Your task to perform on an android device: Search for Italian restaurants on Maps Image 0: 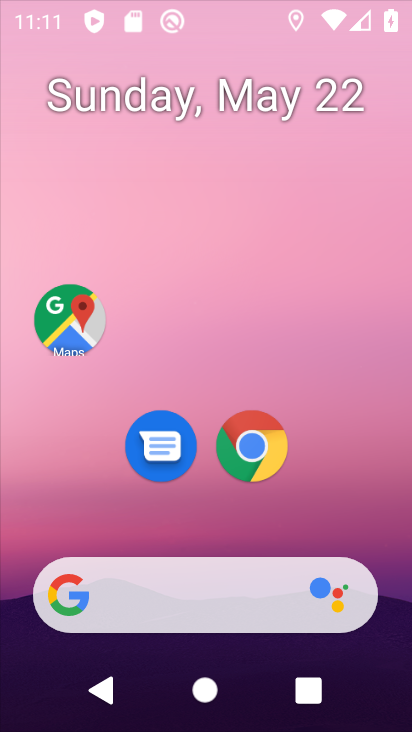
Step 0: drag from (203, 416) to (296, 85)
Your task to perform on an android device: Search for Italian restaurants on Maps Image 1: 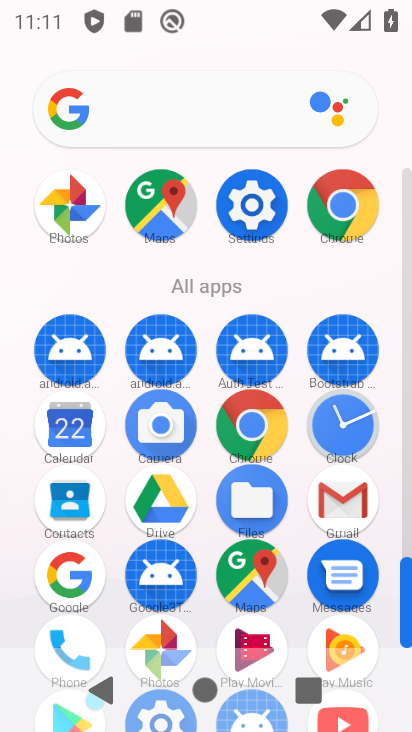
Step 1: click (272, 189)
Your task to perform on an android device: Search for Italian restaurants on Maps Image 2: 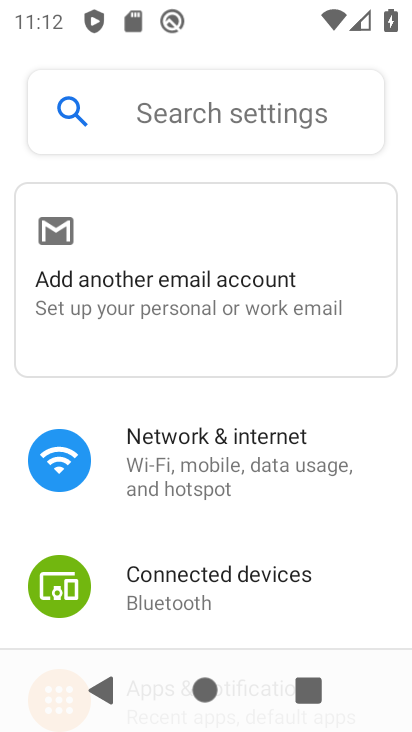
Step 2: drag from (268, 376) to (319, 147)
Your task to perform on an android device: Search for Italian restaurants on Maps Image 3: 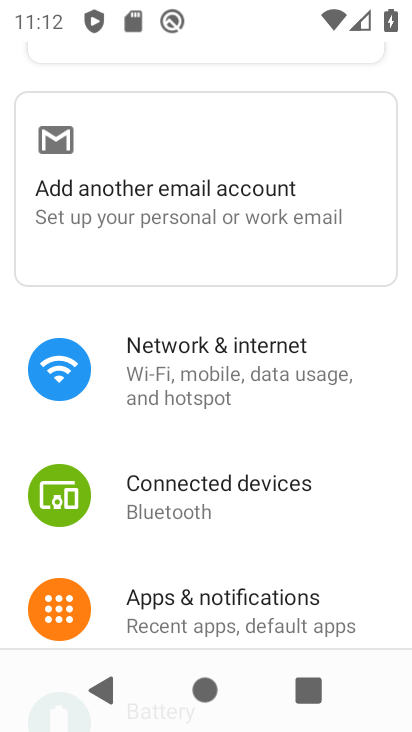
Step 3: press back button
Your task to perform on an android device: Search for Italian restaurants on Maps Image 4: 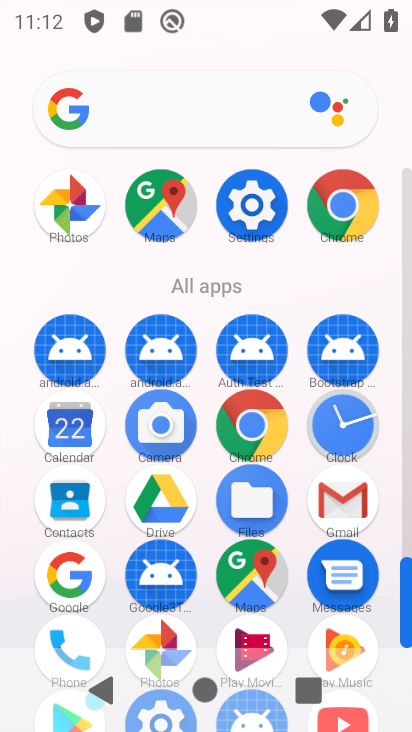
Step 4: click (143, 203)
Your task to perform on an android device: Search for Italian restaurants on Maps Image 5: 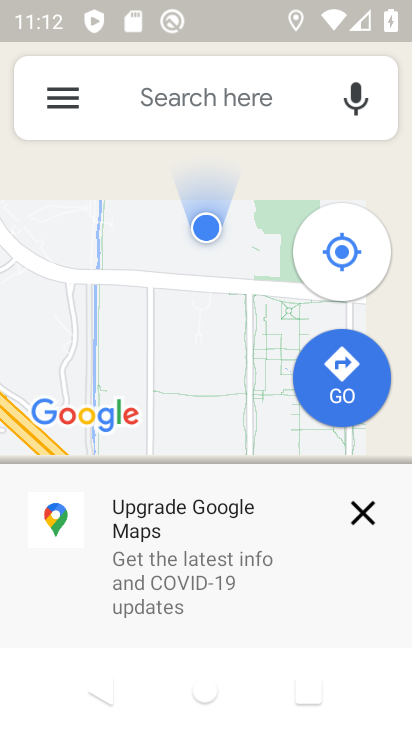
Step 5: click (159, 93)
Your task to perform on an android device: Search for Italian restaurants on Maps Image 6: 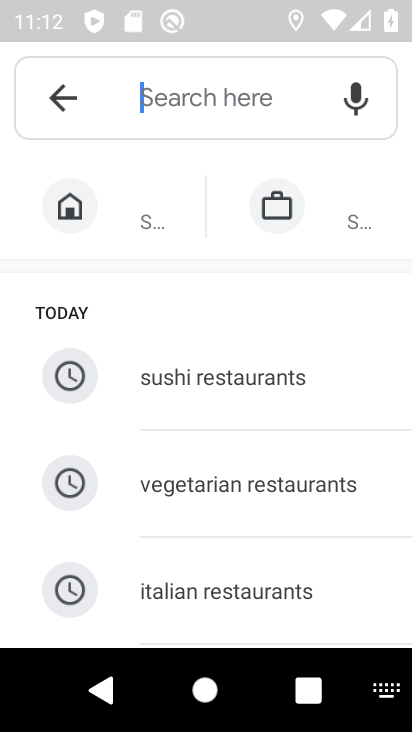
Step 6: click (186, 578)
Your task to perform on an android device: Search for Italian restaurants on Maps Image 7: 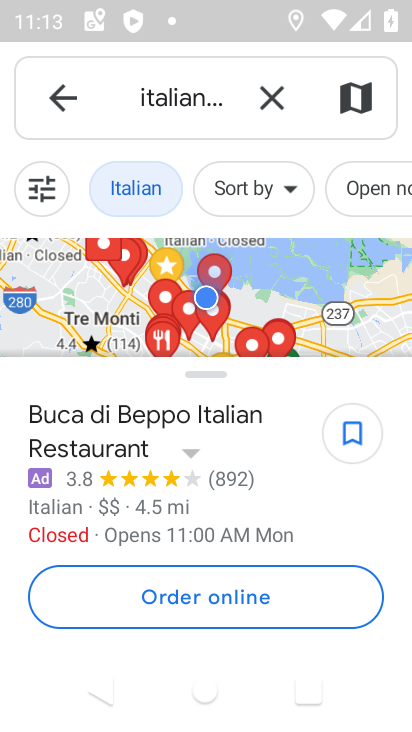
Step 7: task complete